Your task to perform on an android device: turn off notifications settings in the gmail app Image 0: 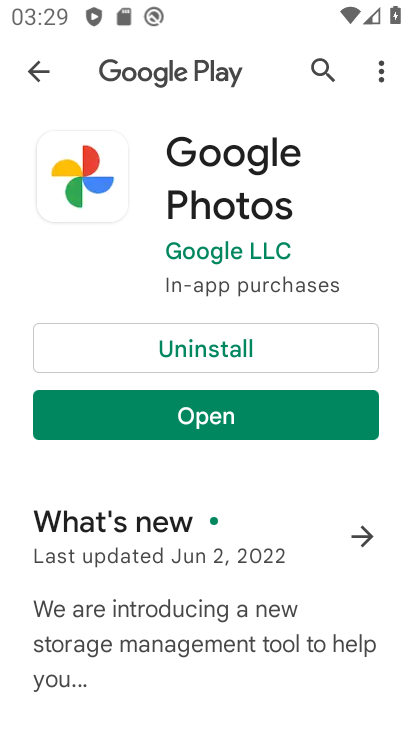
Step 0: press home button
Your task to perform on an android device: turn off notifications settings in the gmail app Image 1: 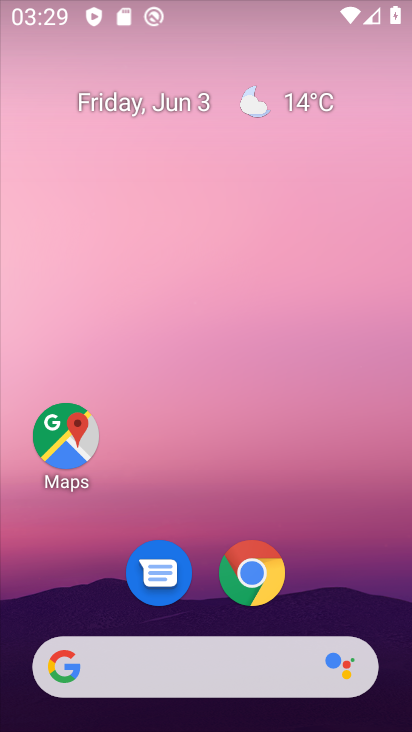
Step 1: drag from (275, 700) to (331, 93)
Your task to perform on an android device: turn off notifications settings in the gmail app Image 2: 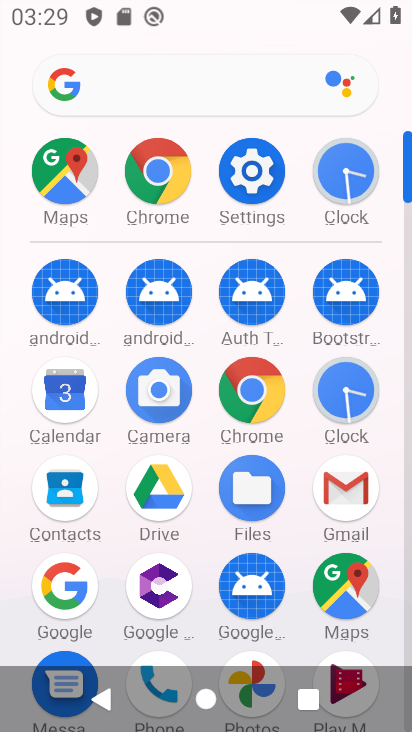
Step 2: click (344, 502)
Your task to perform on an android device: turn off notifications settings in the gmail app Image 3: 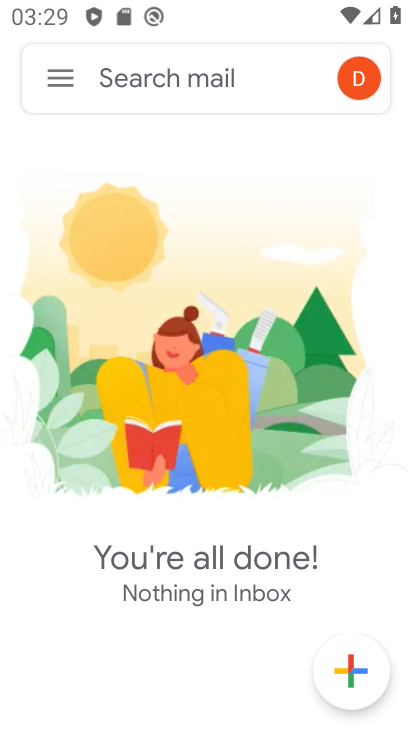
Step 3: click (77, 70)
Your task to perform on an android device: turn off notifications settings in the gmail app Image 4: 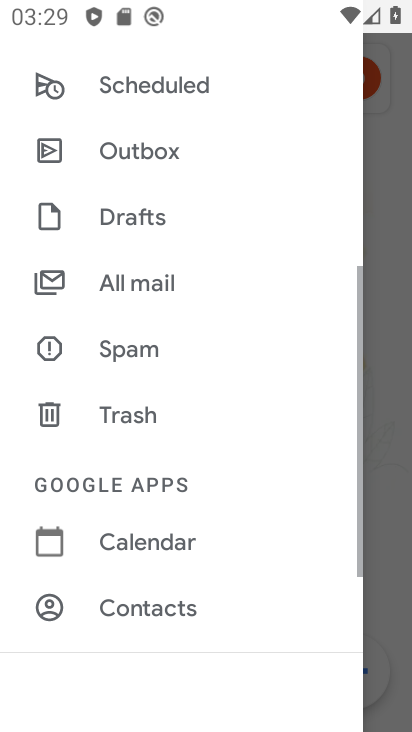
Step 4: drag from (151, 607) to (225, 242)
Your task to perform on an android device: turn off notifications settings in the gmail app Image 5: 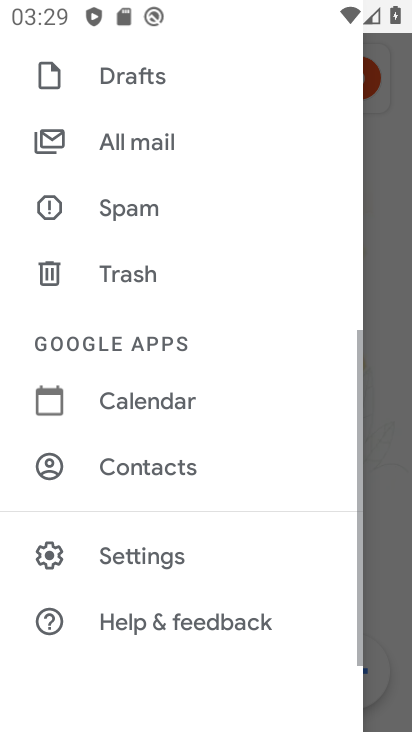
Step 5: click (145, 558)
Your task to perform on an android device: turn off notifications settings in the gmail app Image 6: 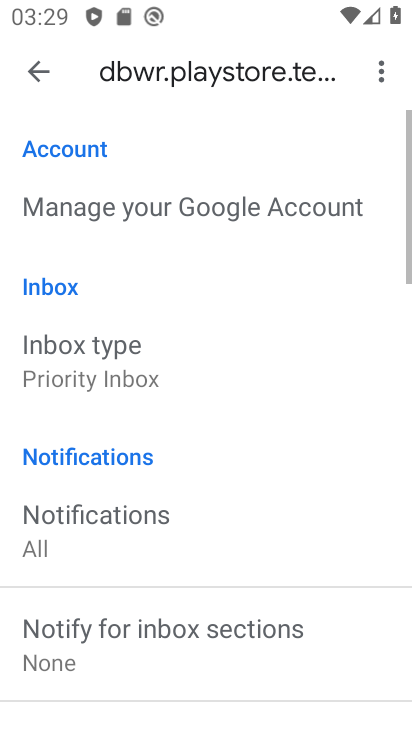
Step 6: drag from (137, 685) to (220, 258)
Your task to perform on an android device: turn off notifications settings in the gmail app Image 7: 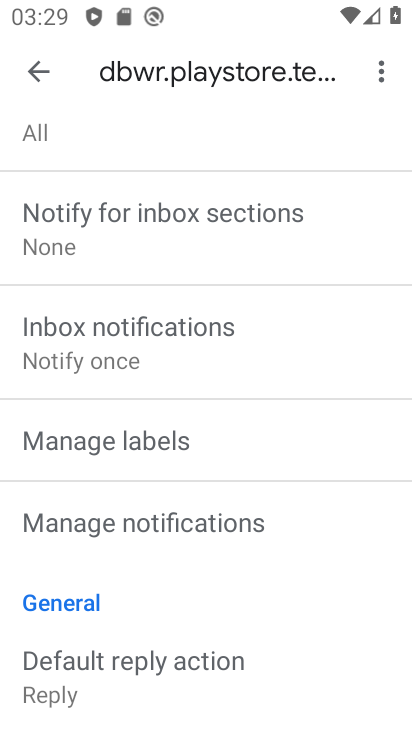
Step 7: click (171, 525)
Your task to perform on an android device: turn off notifications settings in the gmail app Image 8: 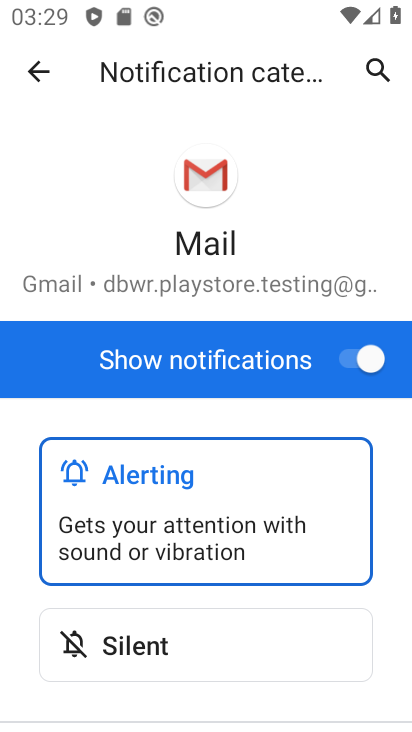
Step 8: click (351, 355)
Your task to perform on an android device: turn off notifications settings in the gmail app Image 9: 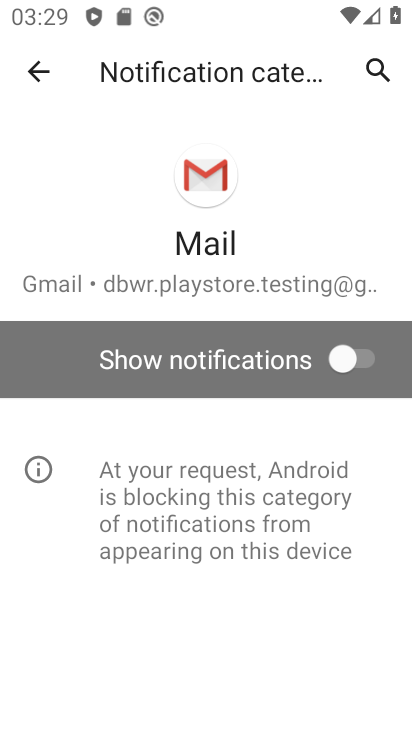
Step 9: task complete